Your task to perform on an android device: Do I have any events this weekend? Image 0: 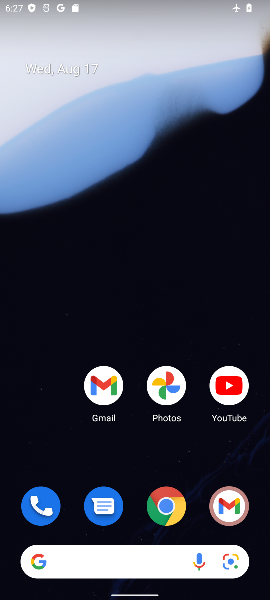
Step 0: drag from (135, 466) to (222, 49)
Your task to perform on an android device: Do I have any events this weekend? Image 1: 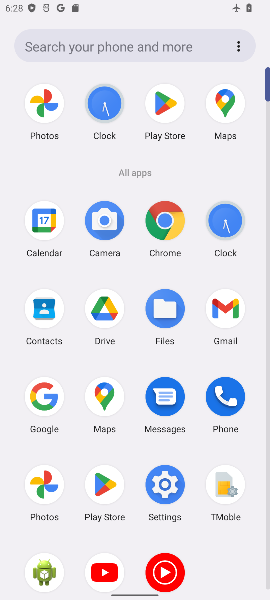
Step 1: click (51, 229)
Your task to perform on an android device: Do I have any events this weekend? Image 2: 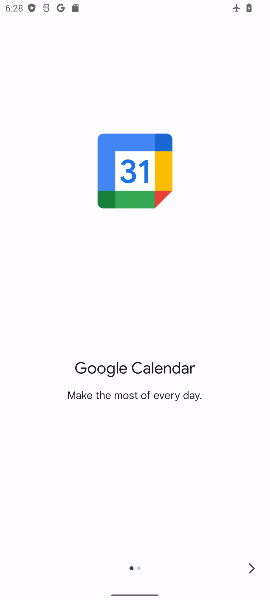
Step 2: click (247, 557)
Your task to perform on an android device: Do I have any events this weekend? Image 3: 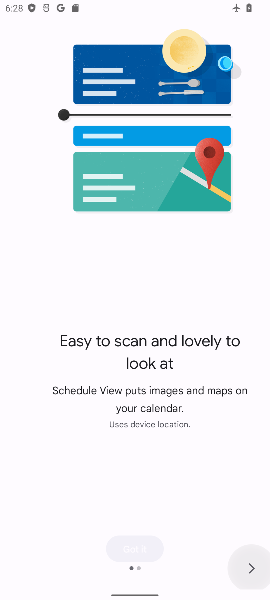
Step 3: click (245, 553)
Your task to perform on an android device: Do I have any events this weekend? Image 4: 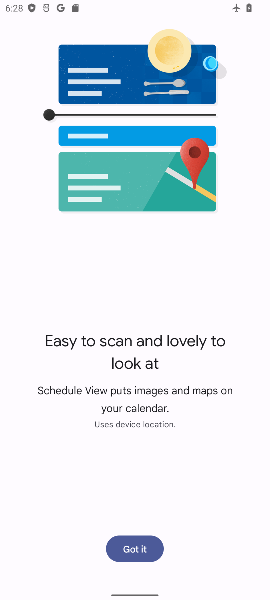
Step 4: click (138, 548)
Your task to perform on an android device: Do I have any events this weekend? Image 5: 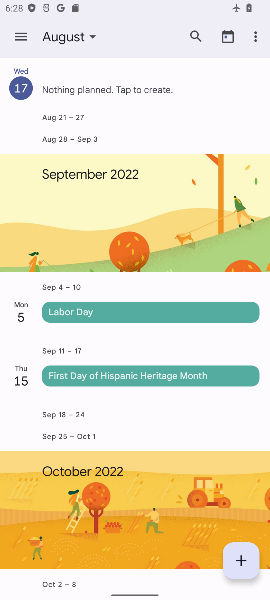
Step 5: click (71, 33)
Your task to perform on an android device: Do I have any events this weekend? Image 6: 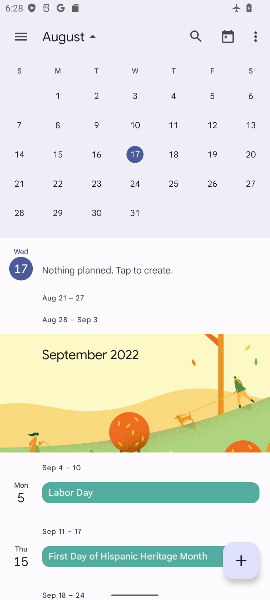
Step 6: click (253, 149)
Your task to perform on an android device: Do I have any events this weekend? Image 7: 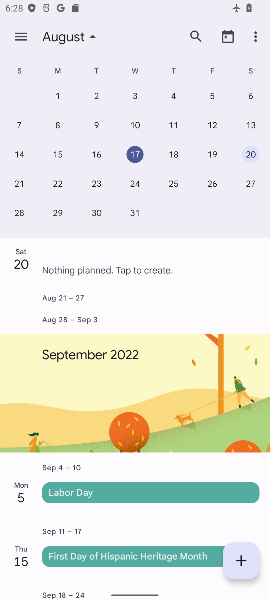
Step 7: task complete